Your task to perform on an android device: delete browsing data in the chrome app Image 0: 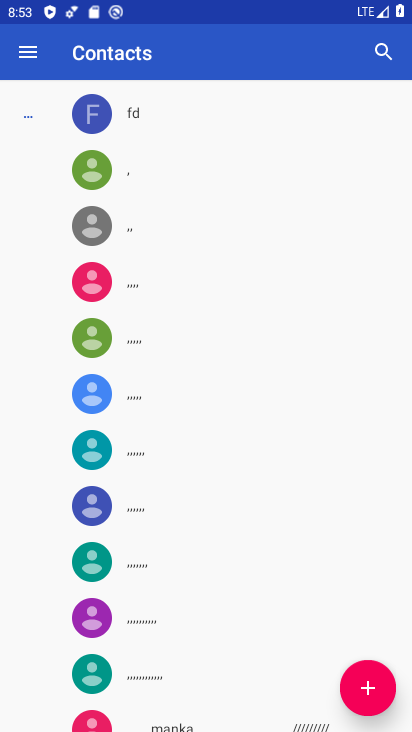
Step 0: press home button
Your task to perform on an android device: delete browsing data in the chrome app Image 1: 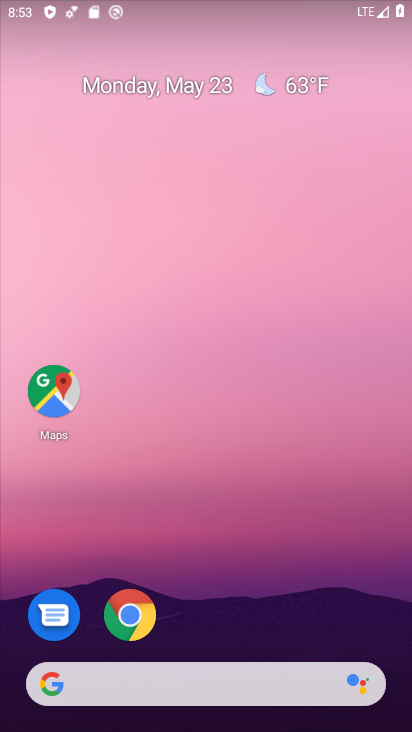
Step 1: click (136, 611)
Your task to perform on an android device: delete browsing data in the chrome app Image 2: 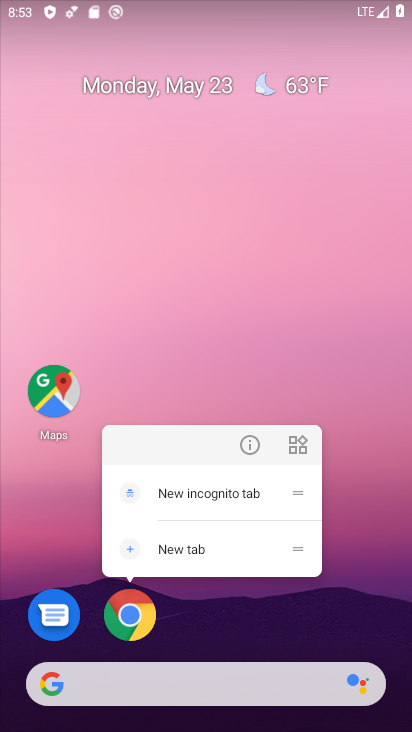
Step 2: click (135, 611)
Your task to perform on an android device: delete browsing data in the chrome app Image 3: 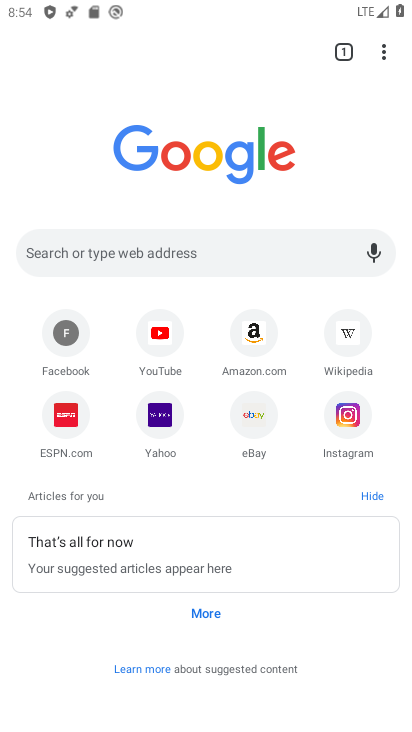
Step 3: click (374, 51)
Your task to perform on an android device: delete browsing data in the chrome app Image 4: 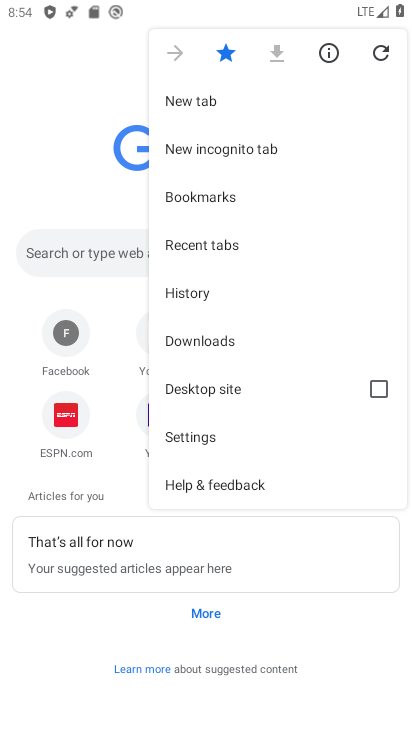
Step 4: click (216, 430)
Your task to perform on an android device: delete browsing data in the chrome app Image 5: 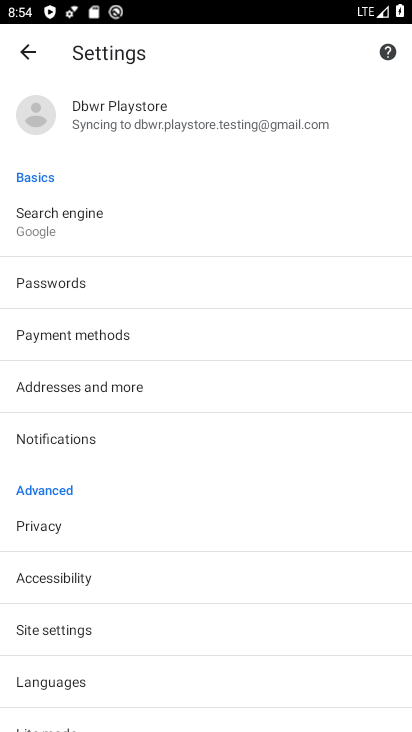
Step 5: drag from (184, 611) to (182, 294)
Your task to perform on an android device: delete browsing data in the chrome app Image 6: 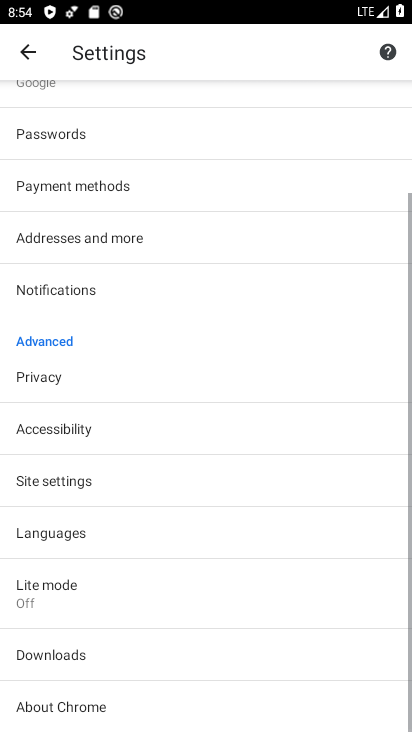
Step 6: drag from (181, 303) to (160, 497)
Your task to perform on an android device: delete browsing data in the chrome app Image 7: 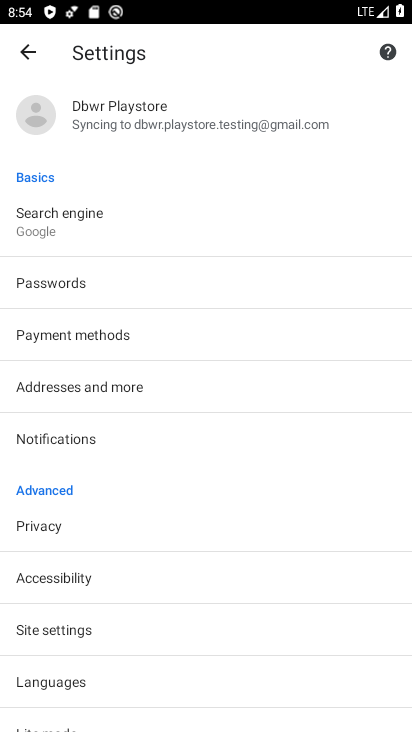
Step 7: click (60, 534)
Your task to perform on an android device: delete browsing data in the chrome app Image 8: 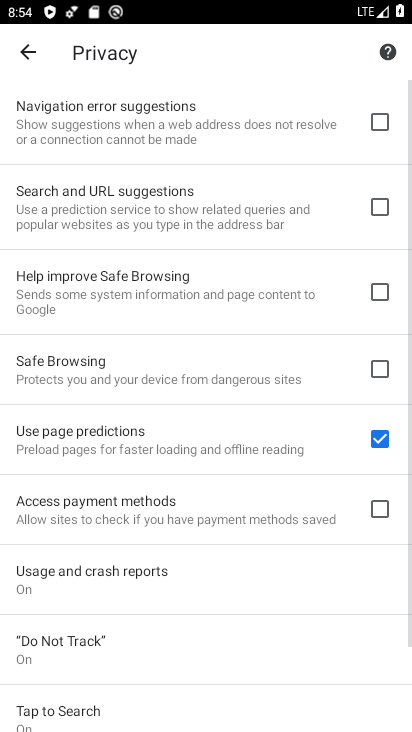
Step 8: drag from (197, 607) to (223, 172)
Your task to perform on an android device: delete browsing data in the chrome app Image 9: 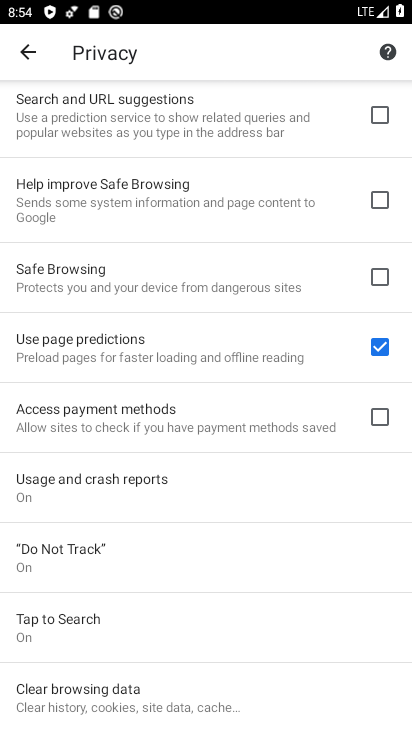
Step 9: click (112, 693)
Your task to perform on an android device: delete browsing data in the chrome app Image 10: 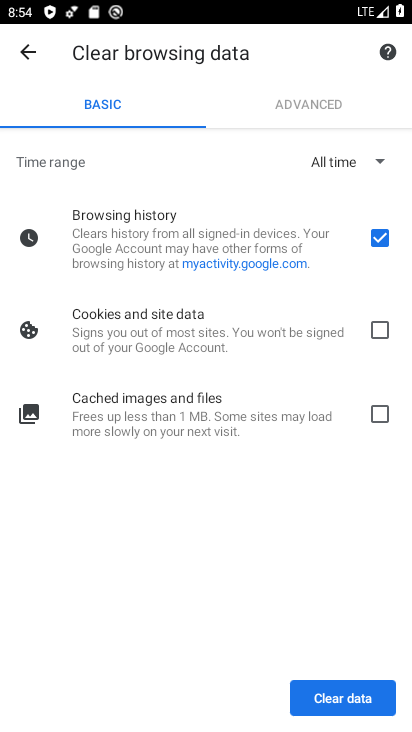
Step 10: click (325, 691)
Your task to perform on an android device: delete browsing data in the chrome app Image 11: 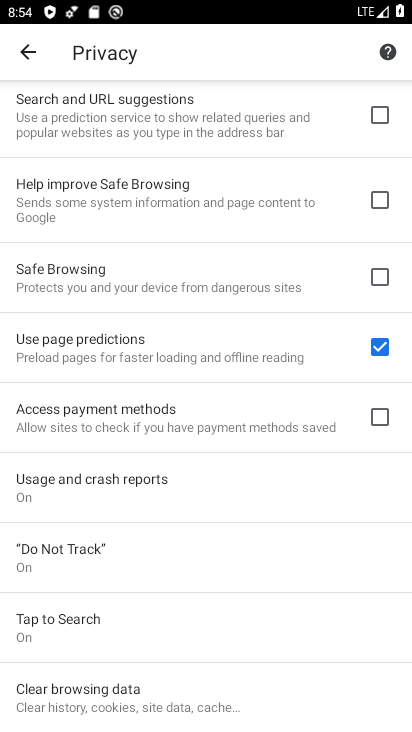
Step 11: task complete